Your task to perform on an android device: What time is it in Beijing? Image 0: 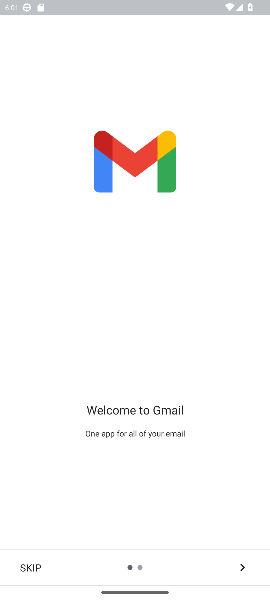
Step 0: press home button
Your task to perform on an android device: What time is it in Beijing? Image 1: 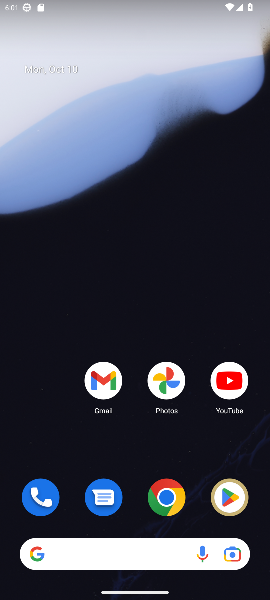
Step 1: drag from (128, 463) to (137, 224)
Your task to perform on an android device: What time is it in Beijing? Image 2: 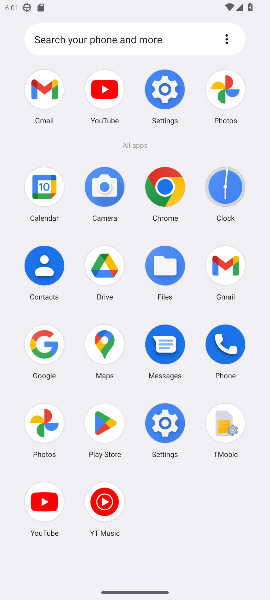
Step 2: click (50, 339)
Your task to perform on an android device: What time is it in Beijing? Image 3: 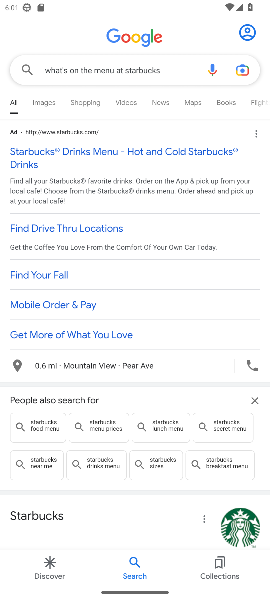
Step 3: click (144, 62)
Your task to perform on an android device: What time is it in Beijing? Image 4: 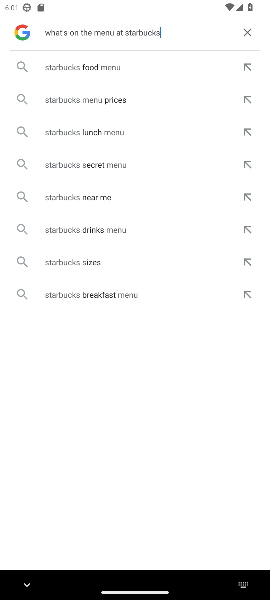
Step 4: click (242, 27)
Your task to perform on an android device: What time is it in Beijing? Image 5: 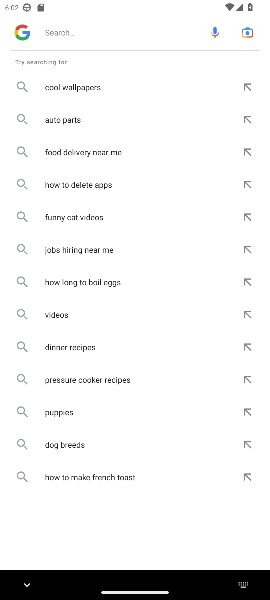
Step 5: click (115, 29)
Your task to perform on an android device: What time is it in Beijing? Image 6: 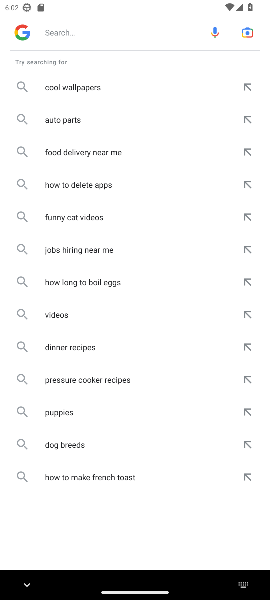
Step 6: type "What time is it in Beijing? "
Your task to perform on an android device: What time is it in Beijing? Image 7: 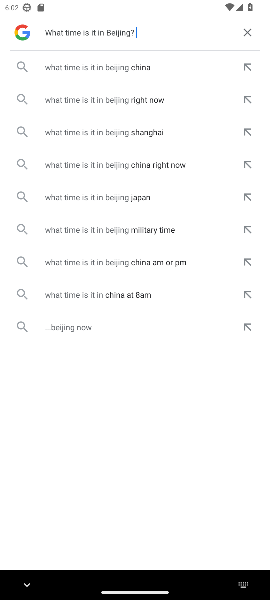
Step 7: click (112, 66)
Your task to perform on an android device: What time is it in Beijing? Image 8: 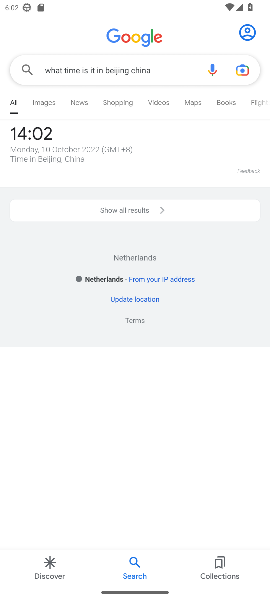
Step 8: task complete